Your task to perform on an android device: find which apps use the phone's location Image 0: 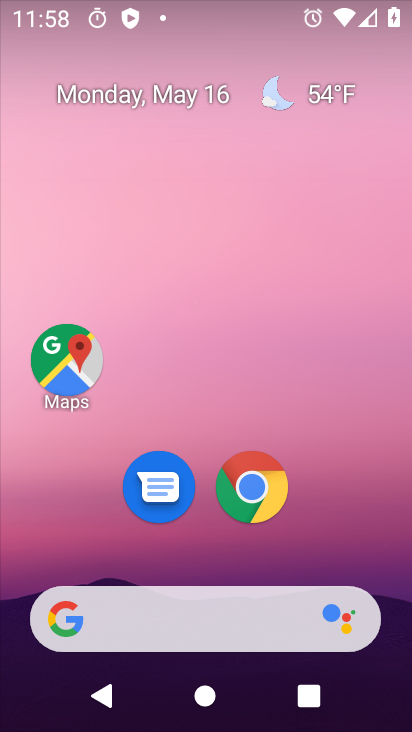
Step 0: drag from (205, 516) to (262, 101)
Your task to perform on an android device: find which apps use the phone's location Image 1: 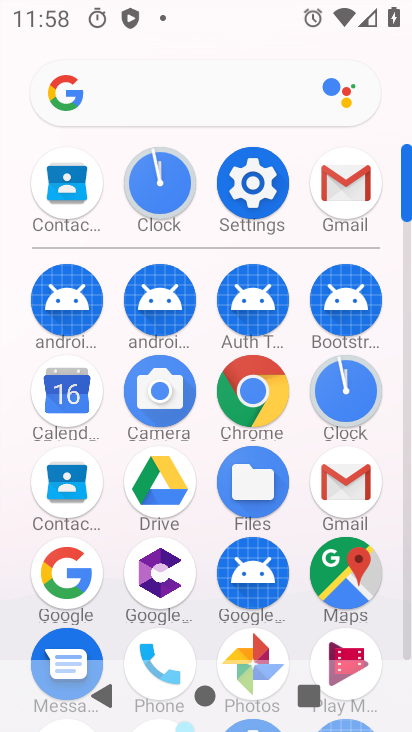
Step 1: click (247, 179)
Your task to perform on an android device: find which apps use the phone's location Image 2: 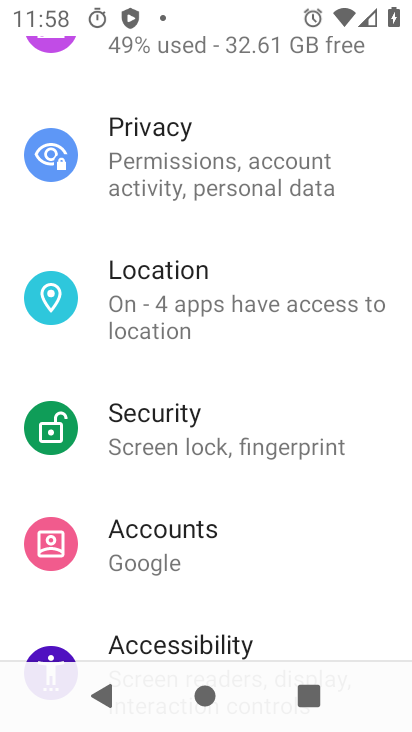
Step 2: click (161, 314)
Your task to perform on an android device: find which apps use the phone's location Image 3: 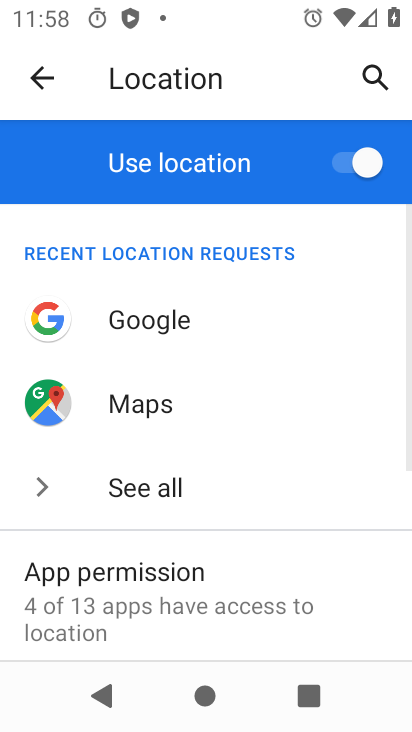
Step 3: drag from (164, 608) to (281, 166)
Your task to perform on an android device: find which apps use the phone's location Image 4: 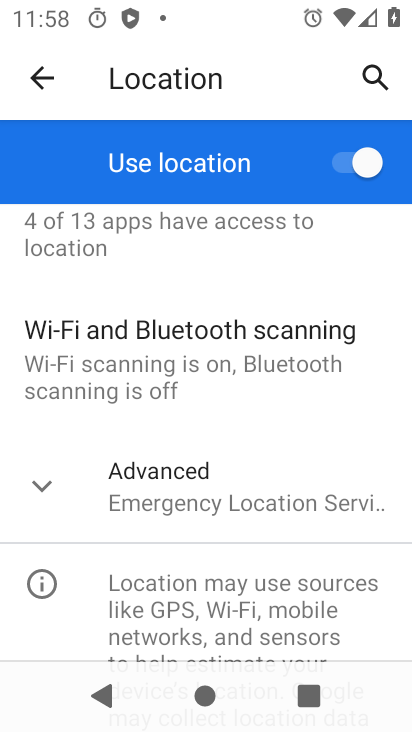
Step 4: drag from (194, 352) to (170, 703)
Your task to perform on an android device: find which apps use the phone's location Image 5: 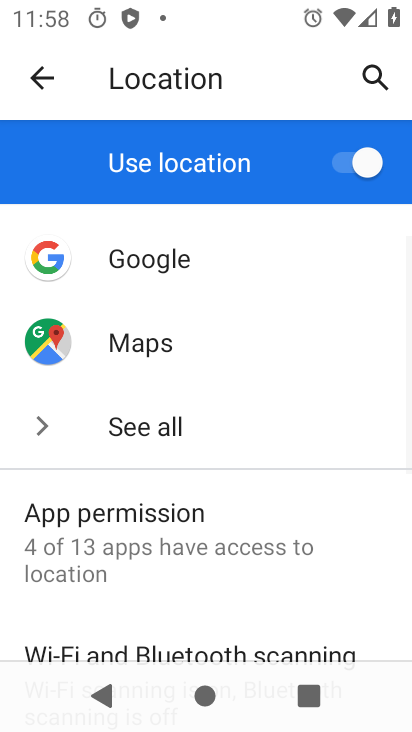
Step 5: click (126, 537)
Your task to perform on an android device: find which apps use the phone's location Image 6: 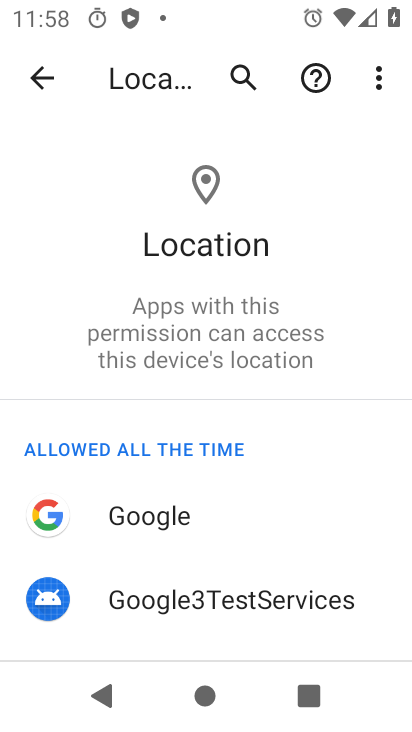
Step 6: task complete